Your task to perform on an android device: Check the weather Image 0: 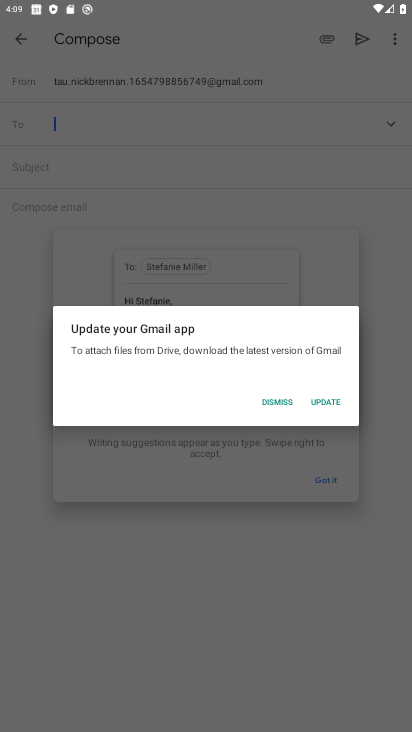
Step 0: press home button
Your task to perform on an android device: Check the weather Image 1: 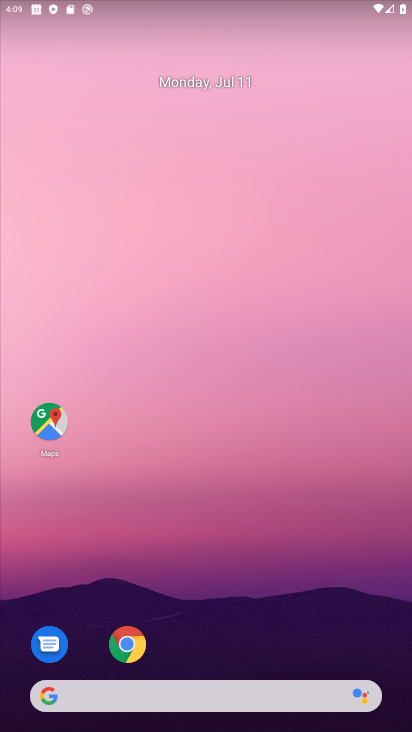
Step 1: click (116, 692)
Your task to perform on an android device: Check the weather Image 2: 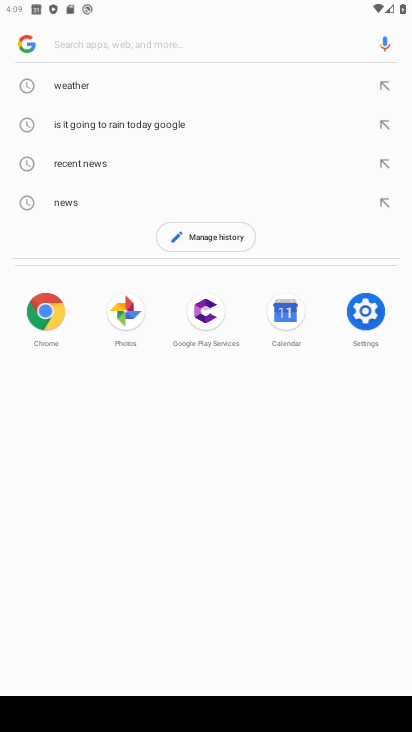
Step 2: type "weather"
Your task to perform on an android device: Check the weather Image 3: 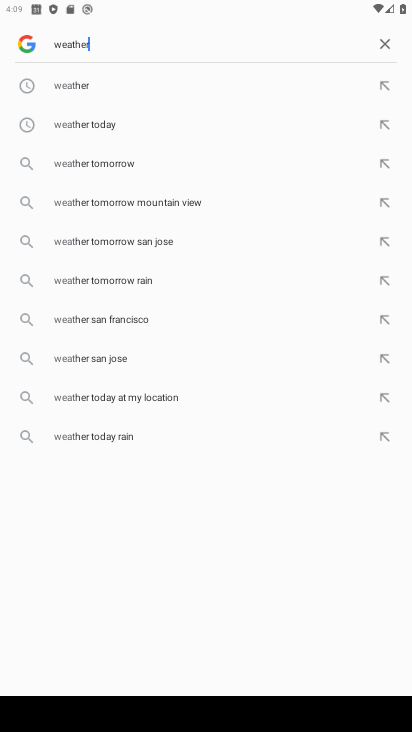
Step 3: type ""
Your task to perform on an android device: Check the weather Image 4: 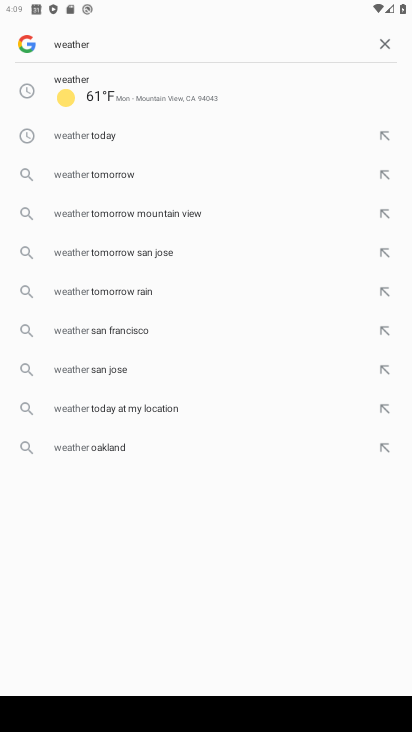
Step 4: click (90, 83)
Your task to perform on an android device: Check the weather Image 5: 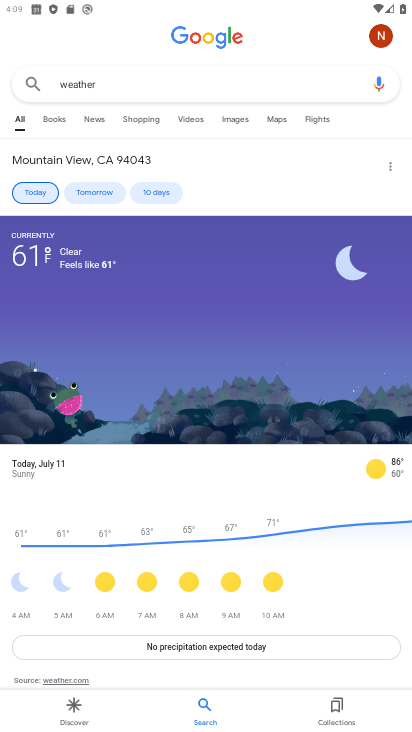
Step 5: task complete